Your task to perform on an android device: Open battery settings Image 0: 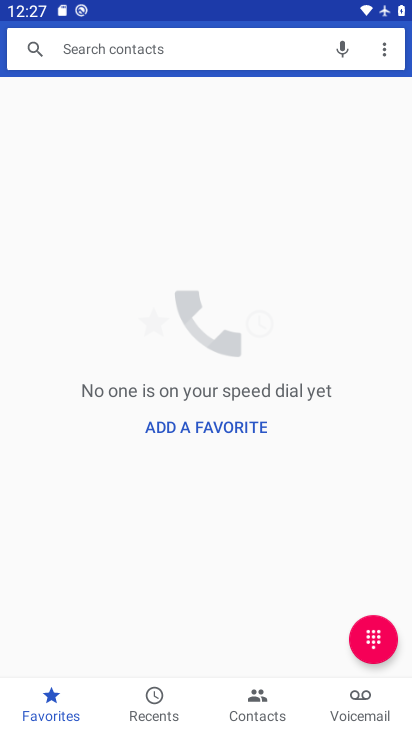
Step 0: press home button
Your task to perform on an android device: Open battery settings Image 1: 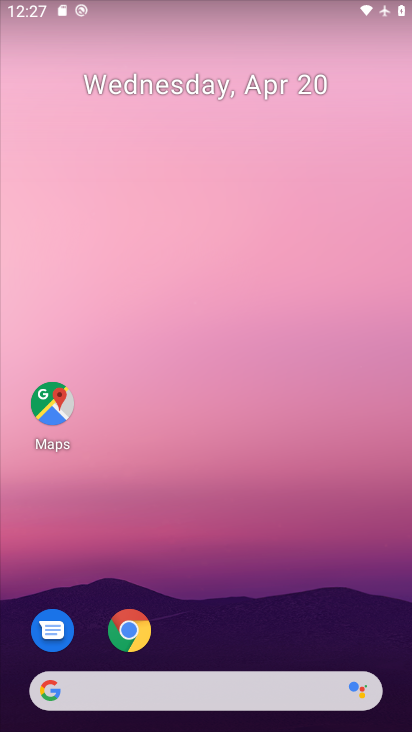
Step 1: drag from (162, 679) to (300, 159)
Your task to perform on an android device: Open battery settings Image 2: 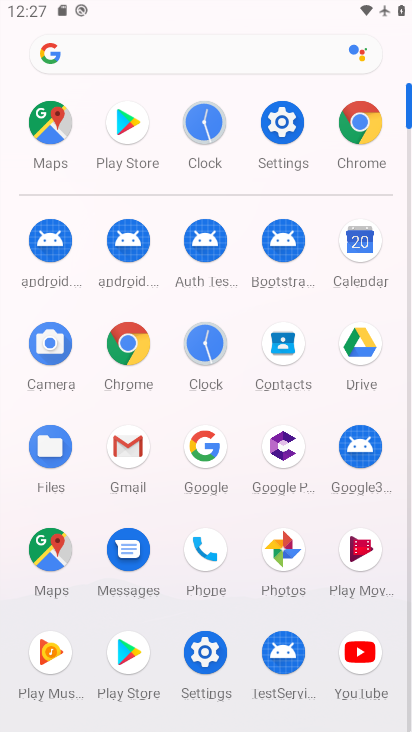
Step 2: click (279, 129)
Your task to perform on an android device: Open battery settings Image 3: 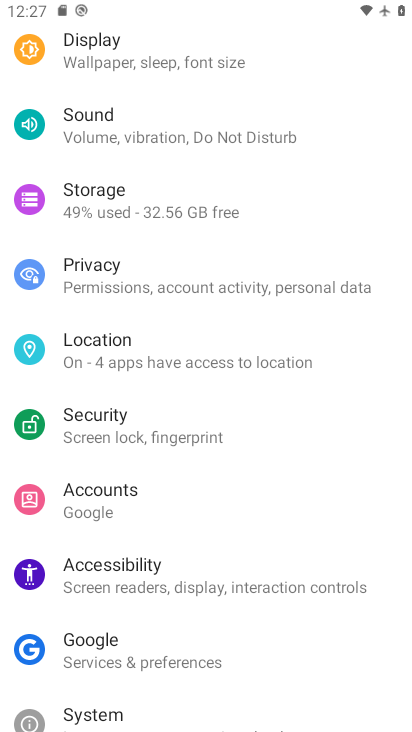
Step 3: drag from (291, 109) to (190, 509)
Your task to perform on an android device: Open battery settings Image 4: 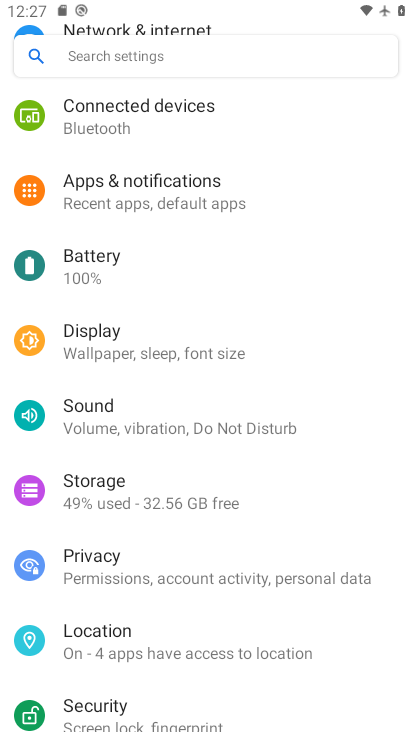
Step 4: click (98, 259)
Your task to perform on an android device: Open battery settings Image 5: 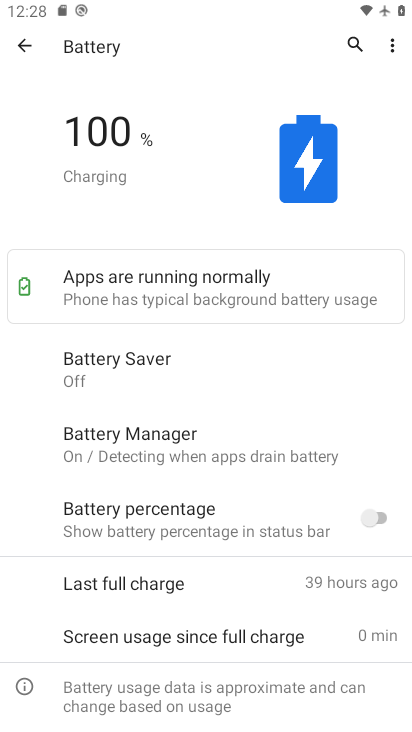
Step 5: task complete